Your task to perform on an android device: turn pop-ups off in chrome Image 0: 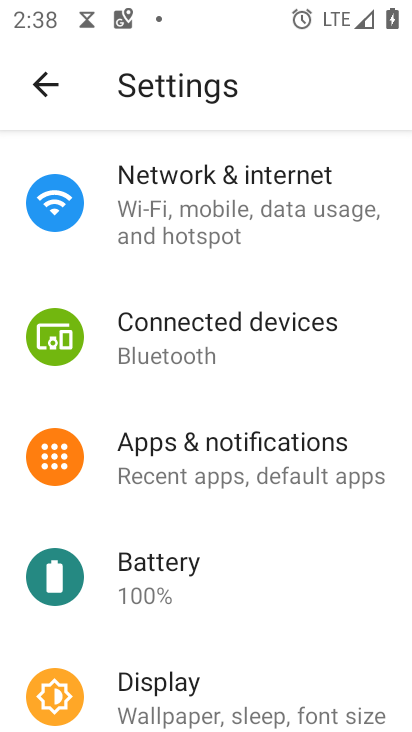
Step 0: press back button
Your task to perform on an android device: turn pop-ups off in chrome Image 1: 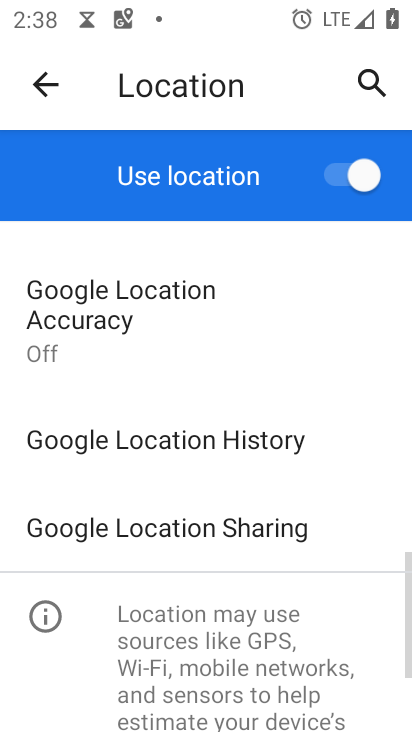
Step 1: press back button
Your task to perform on an android device: turn pop-ups off in chrome Image 2: 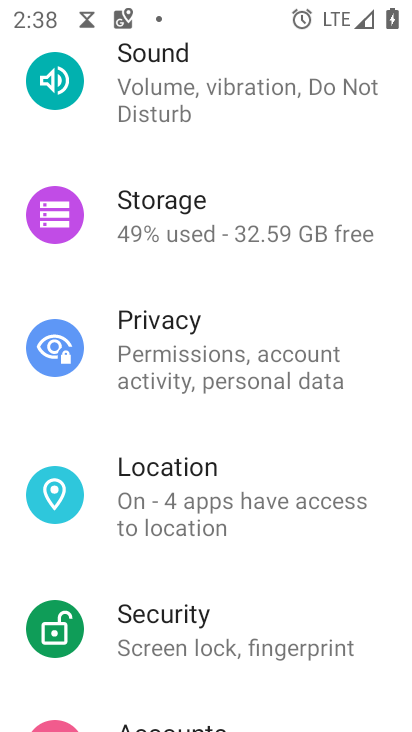
Step 2: press home button
Your task to perform on an android device: turn pop-ups off in chrome Image 3: 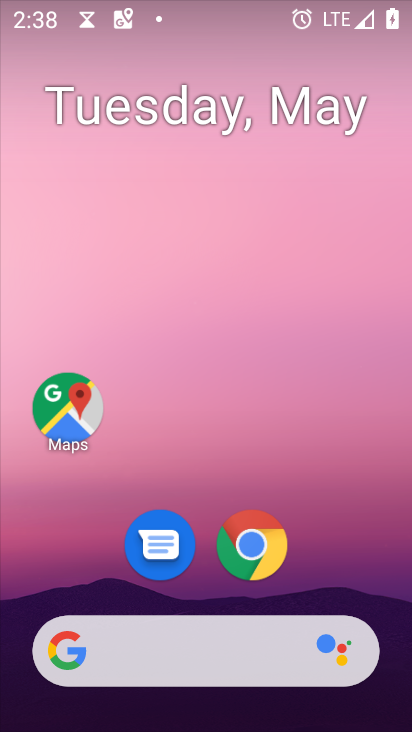
Step 3: drag from (330, 543) to (232, 41)
Your task to perform on an android device: turn pop-ups off in chrome Image 4: 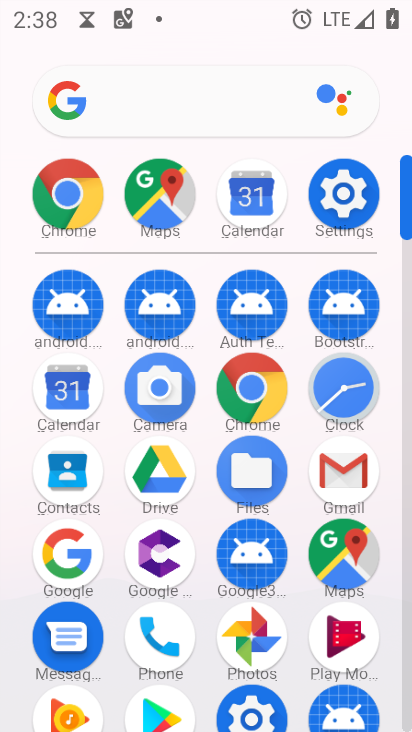
Step 4: click (251, 380)
Your task to perform on an android device: turn pop-ups off in chrome Image 5: 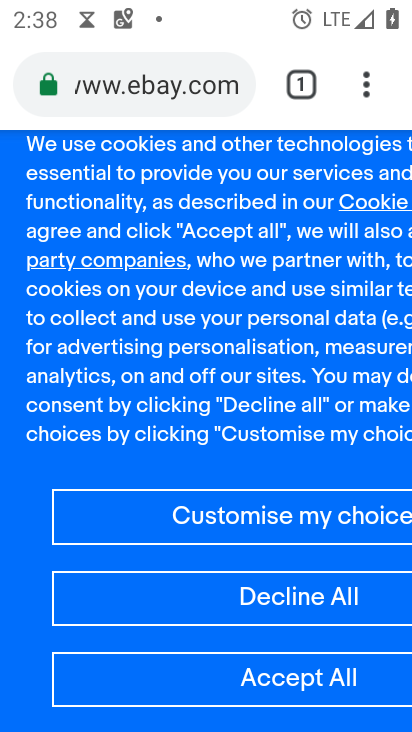
Step 5: drag from (366, 79) to (135, 587)
Your task to perform on an android device: turn pop-ups off in chrome Image 6: 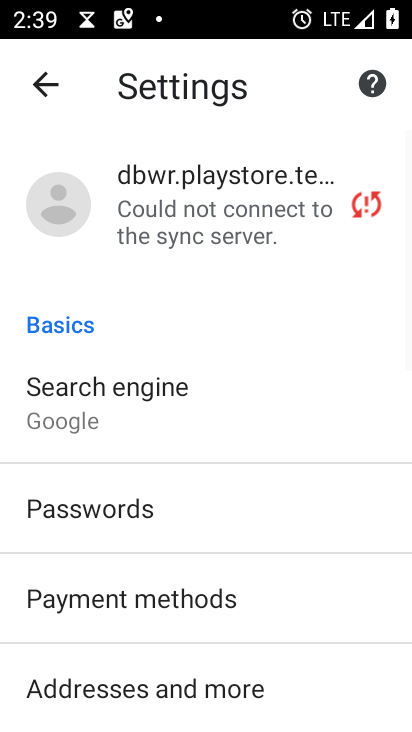
Step 6: drag from (261, 569) to (257, 191)
Your task to perform on an android device: turn pop-ups off in chrome Image 7: 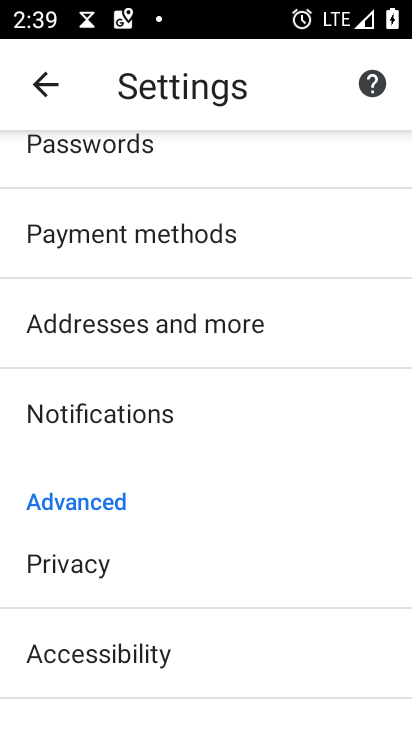
Step 7: drag from (257, 189) to (258, 584)
Your task to perform on an android device: turn pop-ups off in chrome Image 8: 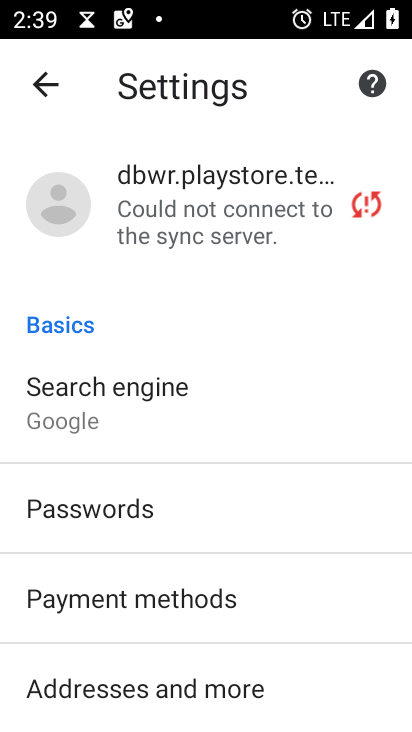
Step 8: drag from (251, 565) to (251, 194)
Your task to perform on an android device: turn pop-ups off in chrome Image 9: 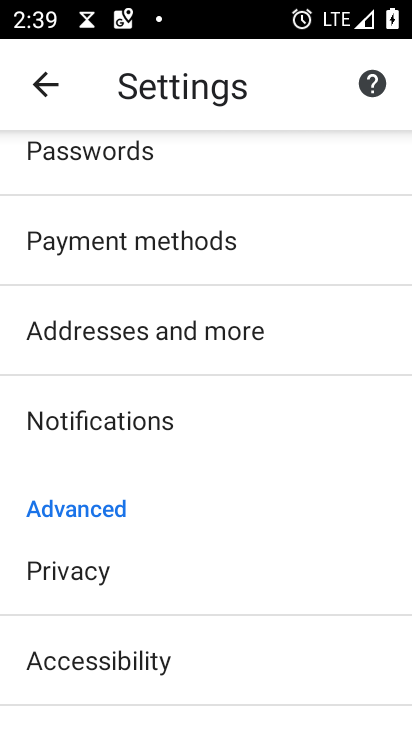
Step 9: drag from (229, 601) to (245, 288)
Your task to perform on an android device: turn pop-ups off in chrome Image 10: 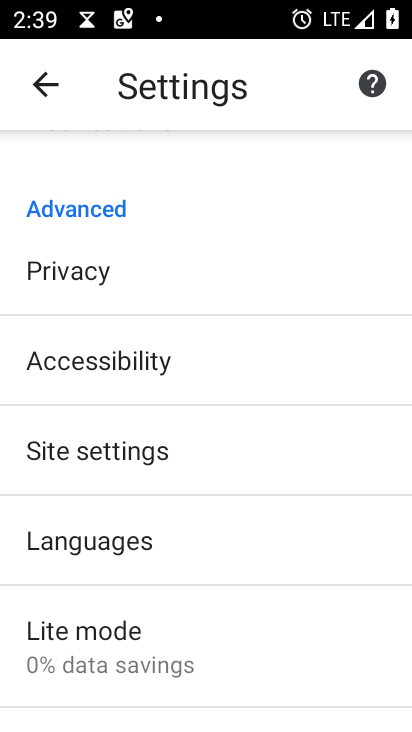
Step 10: click (157, 438)
Your task to perform on an android device: turn pop-ups off in chrome Image 11: 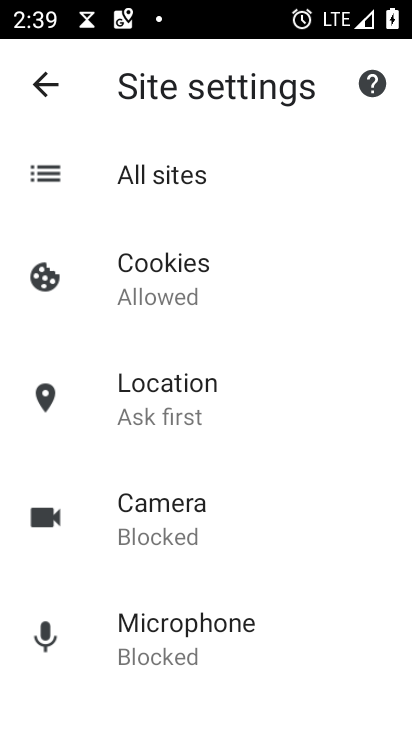
Step 11: task complete